Your task to perform on an android device: turn off priority inbox in the gmail app Image 0: 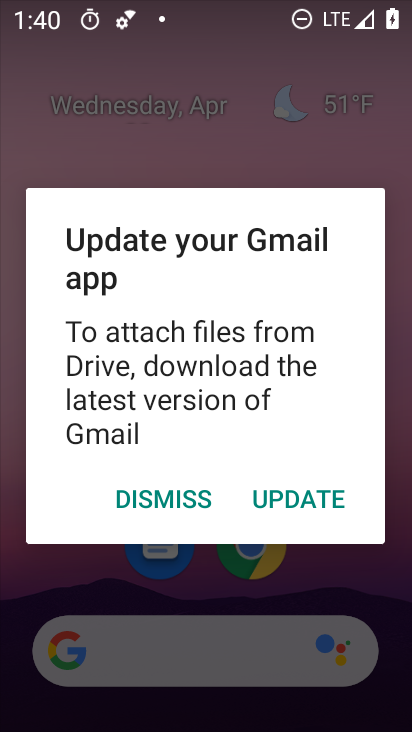
Step 0: press home button
Your task to perform on an android device: turn off priority inbox in the gmail app Image 1: 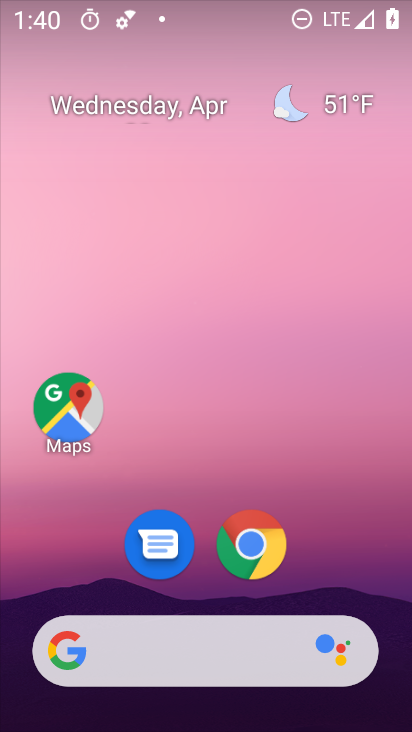
Step 1: drag from (342, 566) to (347, 176)
Your task to perform on an android device: turn off priority inbox in the gmail app Image 2: 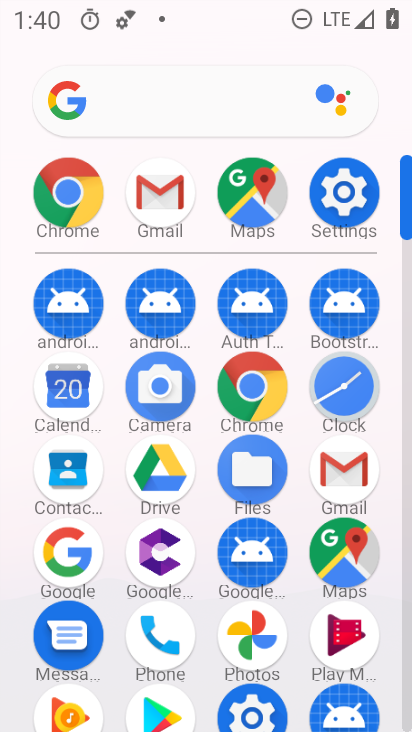
Step 2: click (338, 477)
Your task to perform on an android device: turn off priority inbox in the gmail app Image 3: 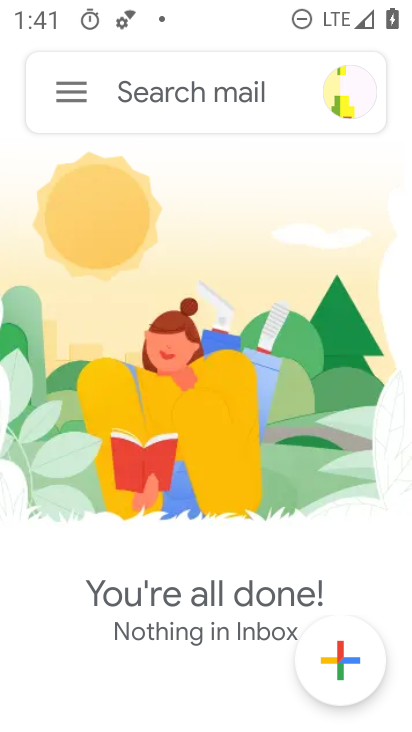
Step 3: click (75, 96)
Your task to perform on an android device: turn off priority inbox in the gmail app Image 4: 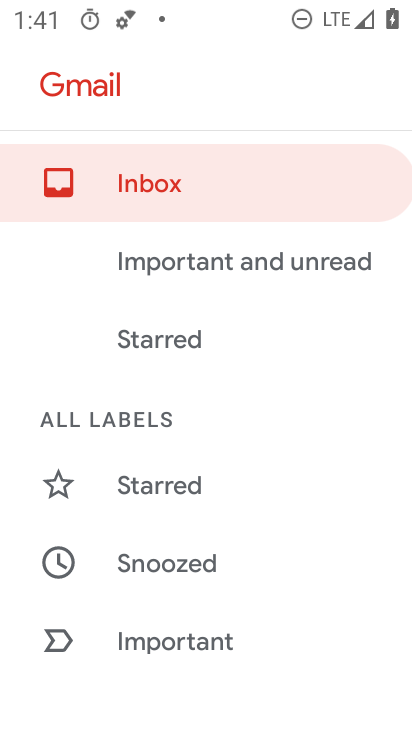
Step 4: drag from (321, 566) to (356, 360)
Your task to perform on an android device: turn off priority inbox in the gmail app Image 5: 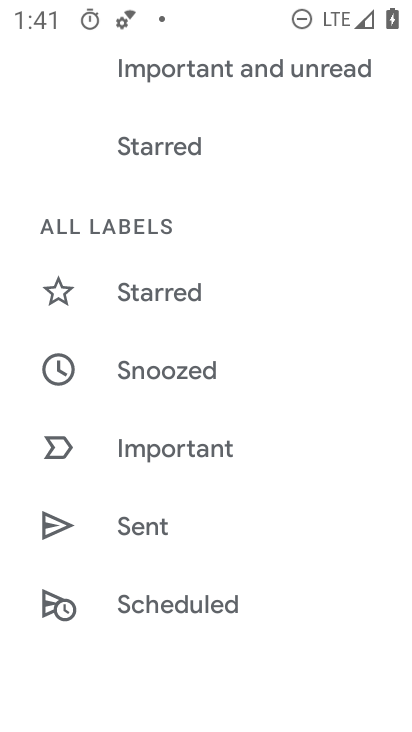
Step 5: drag from (350, 604) to (353, 409)
Your task to perform on an android device: turn off priority inbox in the gmail app Image 6: 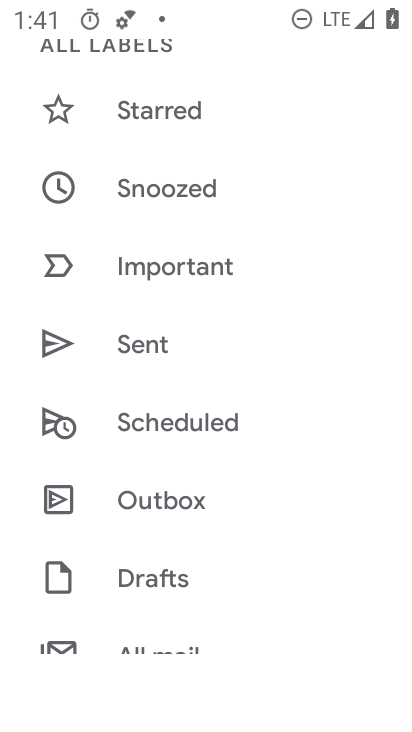
Step 6: drag from (323, 605) to (329, 405)
Your task to perform on an android device: turn off priority inbox in the gmail app Image 7: 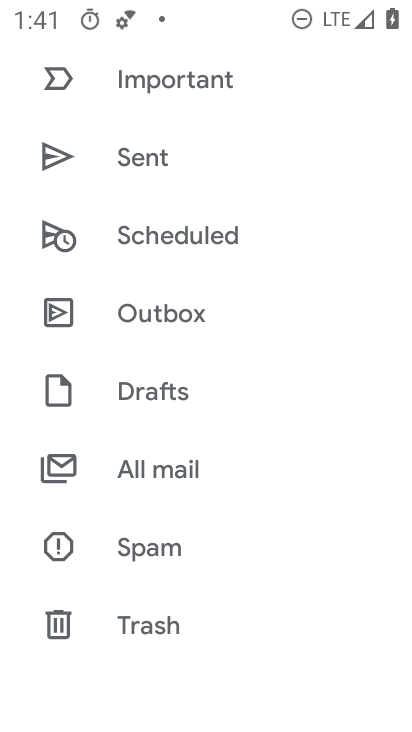
Step 7: drag from (347, 591) to (339, 384)
Your task to perform on an android device: turn off priority inbox in the gmail app Image 8: 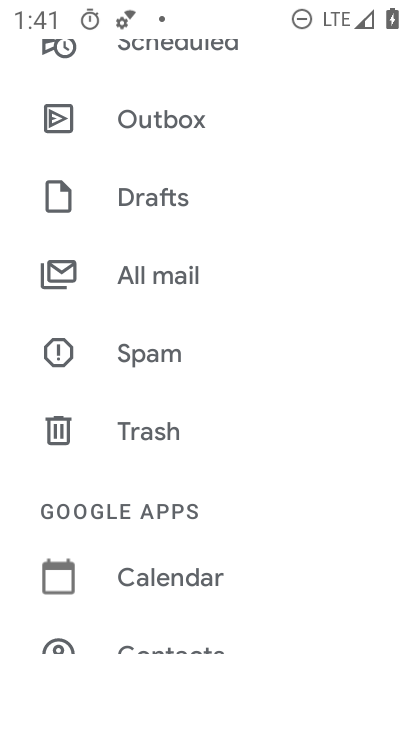
Step 8: drag from (348, 563) to (349, 395)
Your task to perform on an android device: turn off priority inbox in the gmail app Image 9: 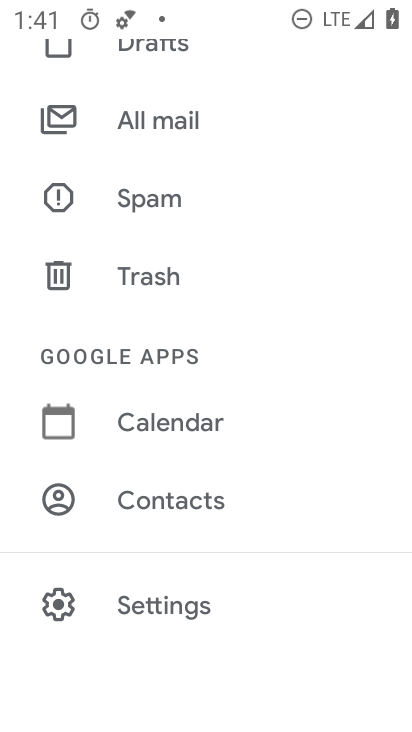
Step 9: drag from (320, 587) to (318, 458)
Your task to perform on an android device: turn off priority inbox in the gmail app Image 10: 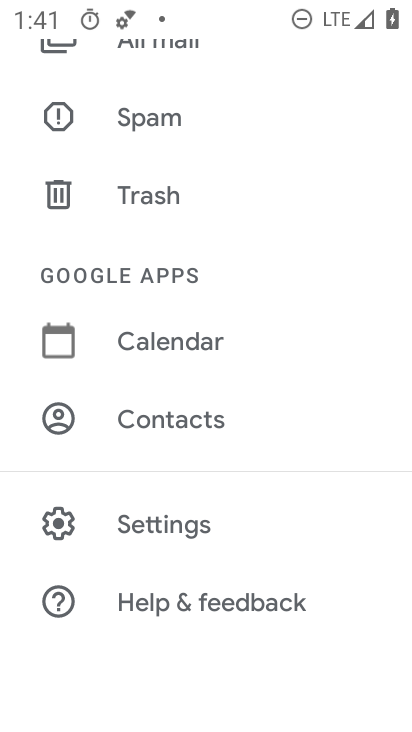
Step 10: click (190, 520)
Your task to perform on an android device: turn off priority inbox in the gmail app Image 11: 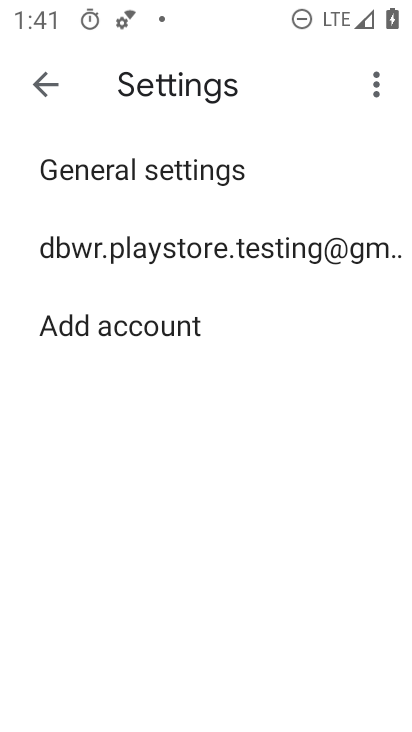
Step 11: click (245, 248)
Your task to perform on an android device: turn off priority inbox in the gmail app Image 12: 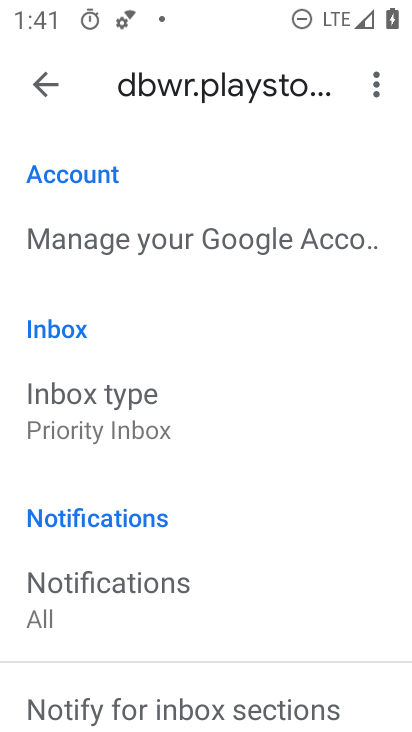
Step 12: drag from (307, 578) to (315, 428)
Your task to perform on an android device: turn off priority inbox in the gmail app Image 13: 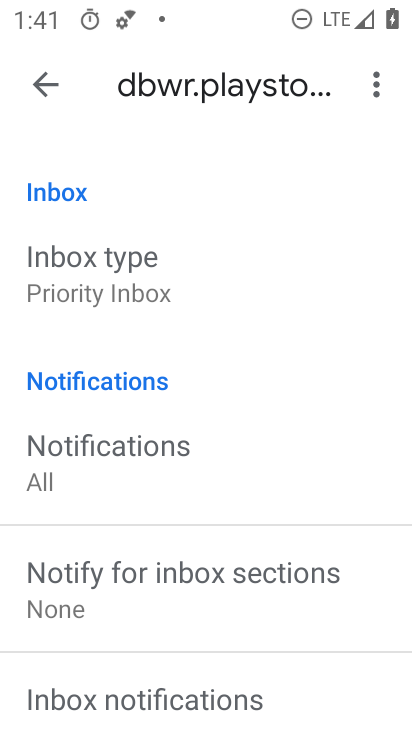
Step 13: drag from (356, 622) to (359, 465)
Your task to perform on an android device: turn off priority inbox in the gmail app Image 14: 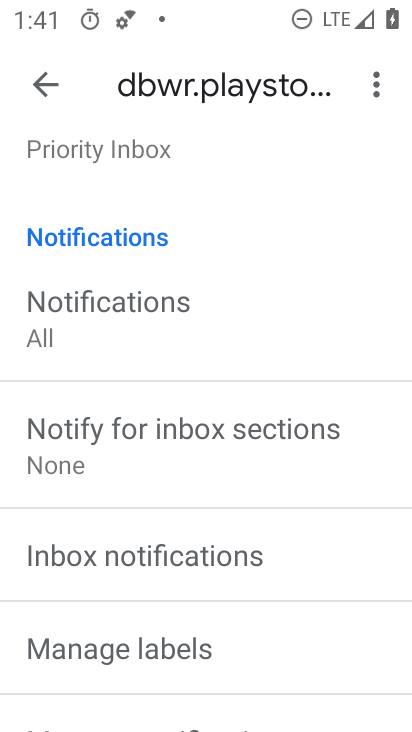
Step 14: drag from (348, 621) to (354, 450)
Your task to perform on an android device: turn off priority inbox in the gmail app Image 15: 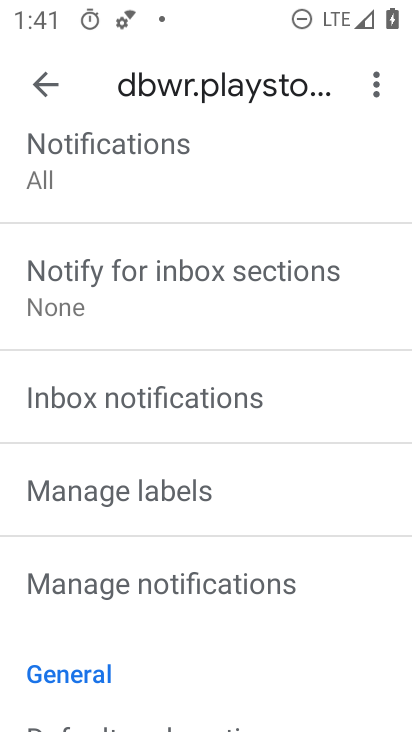
Step 15: drag from (356, 645) to (357, 458)
Your task to perform on an android device: turn off priority inbox in the gmail app Image 16: 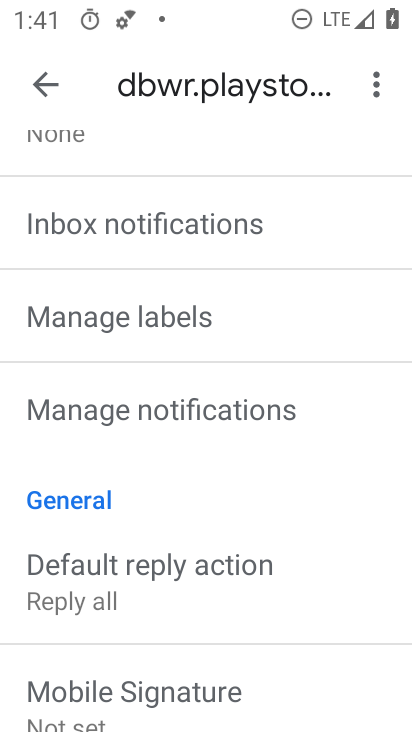
Step 16: drag from (342, 642) to (356, 499)
Your task to perform on an android device: turn off priority inbox in the gmail app Image 17: 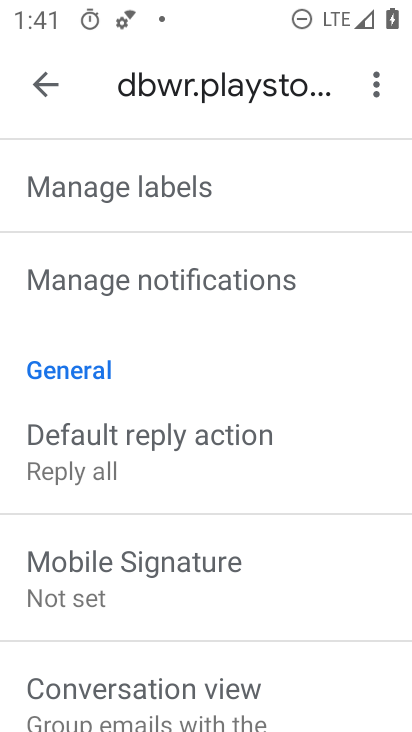
Step 17: drag from (349, 393) to (352, 514)
Your task to perform on an android device: turn off priority inbox in the gmail app Image 18: 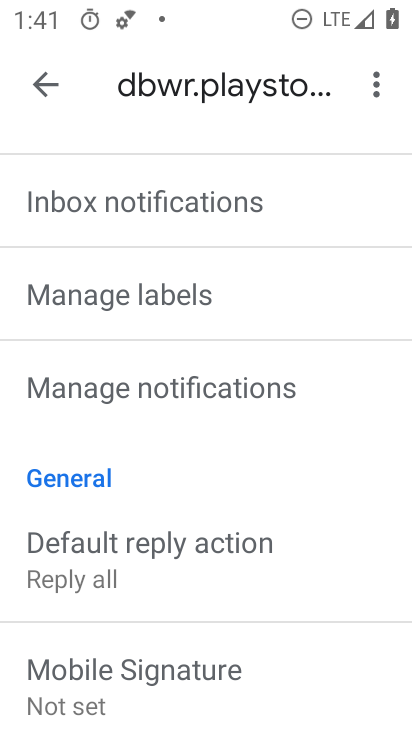
Step 18: drag from (343, 332) to (348, 489)
Your task to perform on an android device: turn off priority inbox in the gmail app Image 19: 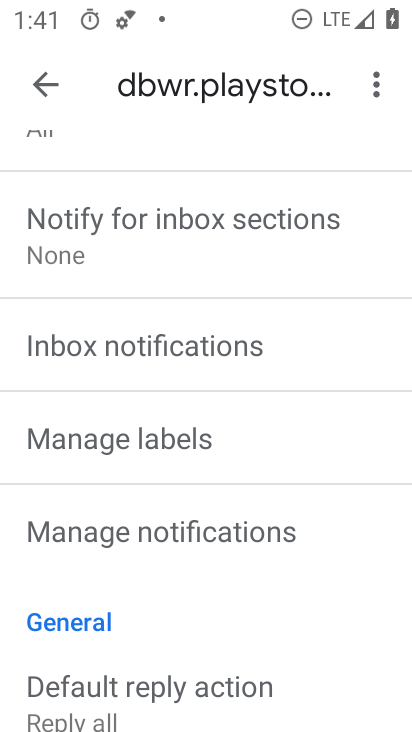
Step 19: drag from (344, 268) to (345, 473)
Your task to perform on an android device: turn off priority inbox in the gmail app Image 20: 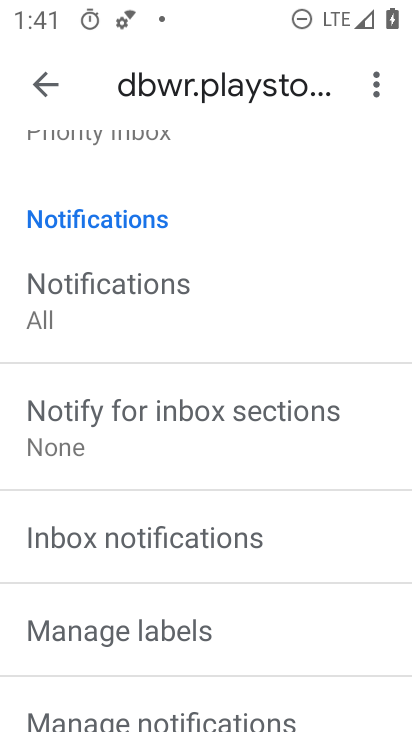
Step 20: drag from (353, 243) to (360, 420)
Your task to perform on an android device: turn off priority inbox in the gmail app Image 21: 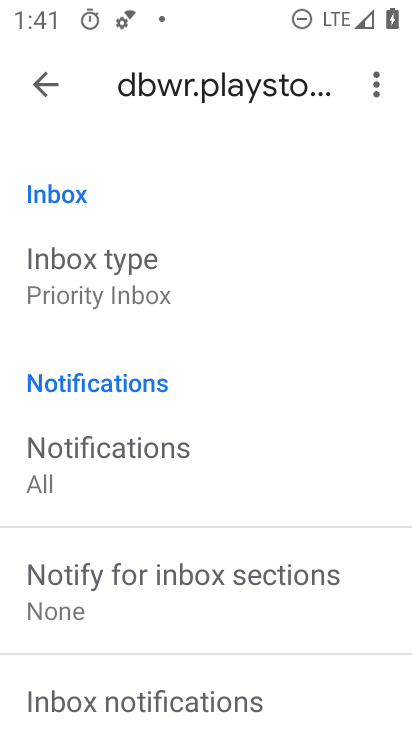
Step 21: click (112, 287)
Your task to perform on an android device: turn off priority inbox in the gmail app Image 22: 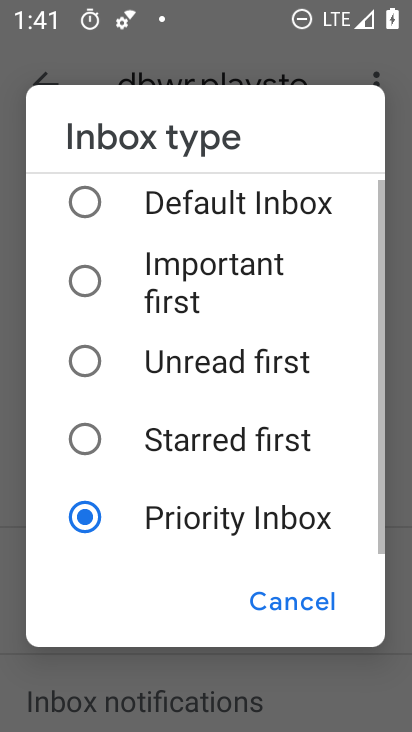
Step 22: click (88, 276)
Your task to perform on an android device: turn off priority inbox in the gmail app Image 23: 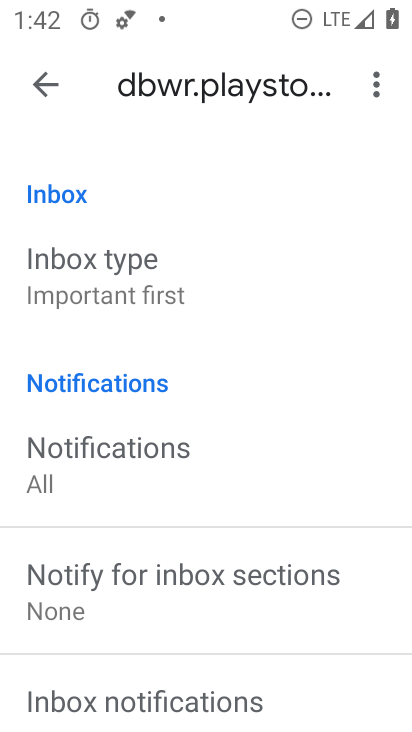
Step 23: task complete